Your task to perform on an android device: open chrome and create a bookmark for the current page Image 0: 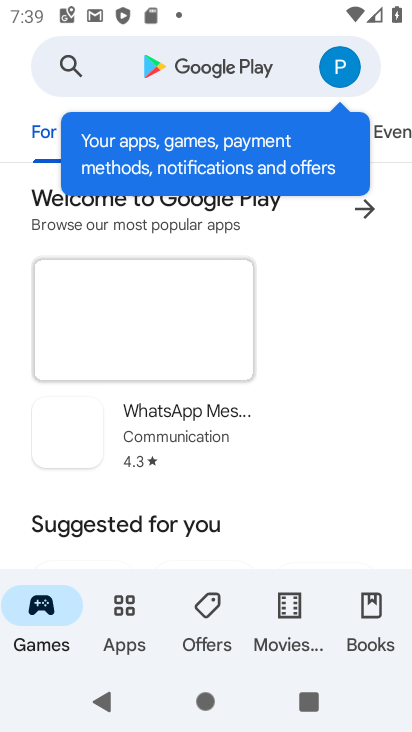
Step 0: press home button
Your task to perform on an android device: open chrome and create a bookmark for the current page Image 1: 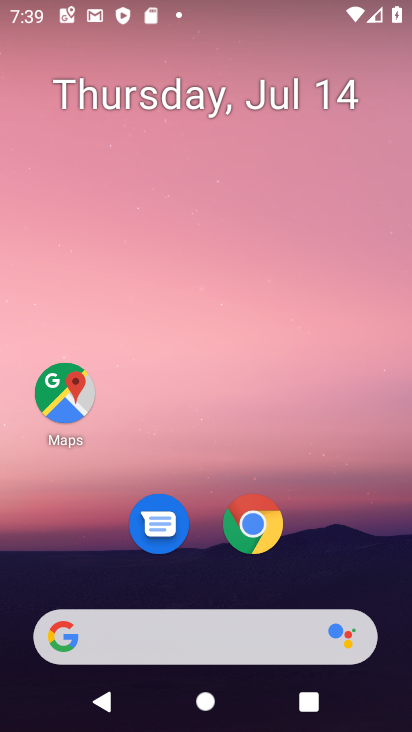
Step 1: drag from (313, 564) to (319, 78)
Your task to perform on an android device: open chrome and create a bookmark for the current page Image 2: 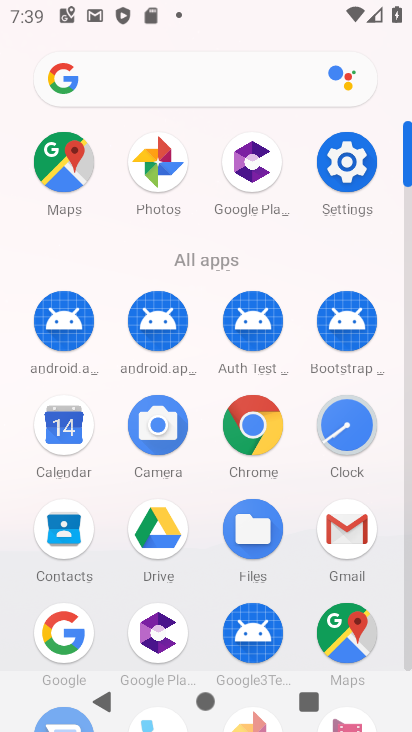
Step 2: click (254, 422)
Your task to perform on an android device: open chrome and create a bookmark for the current page Image 3: 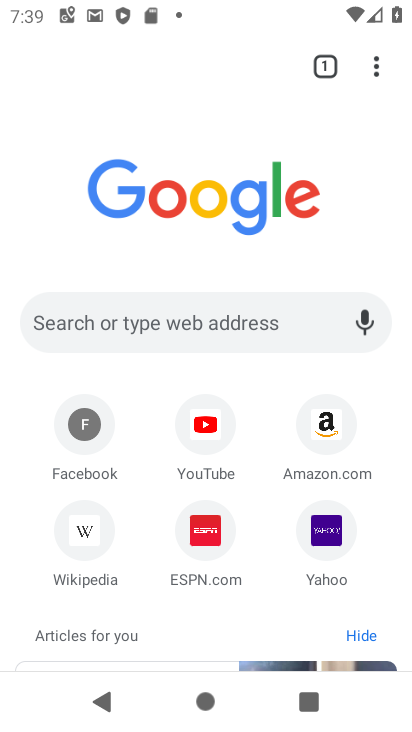
Step 3: click (376, 68)
Your task to perform on an android device: open chrome and create a bookmark for the current page Image 4: 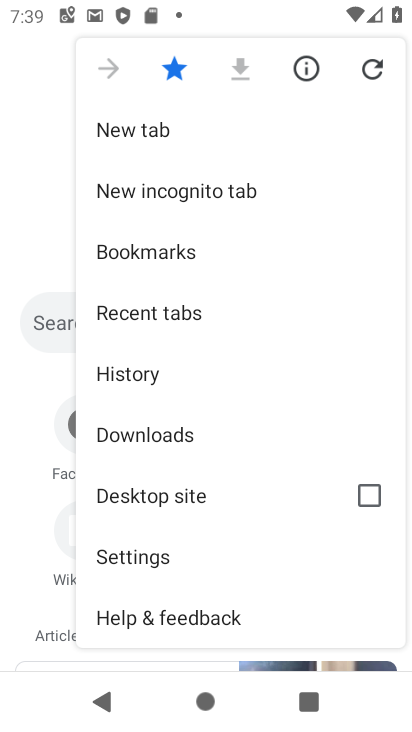
Step 4: click (45, 122)
Your task to perform on an android device: open chrome and create a bookmark for the current page Image 5: 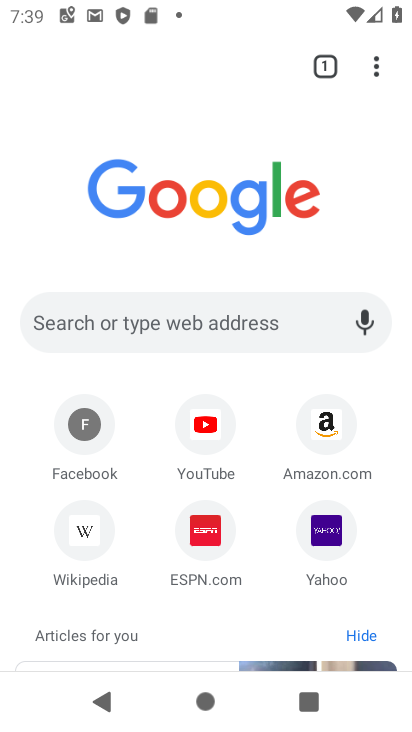
Step 5: task complete